Your task to perform on an android device: Search for Mexican restaurants on Maps Image 0: 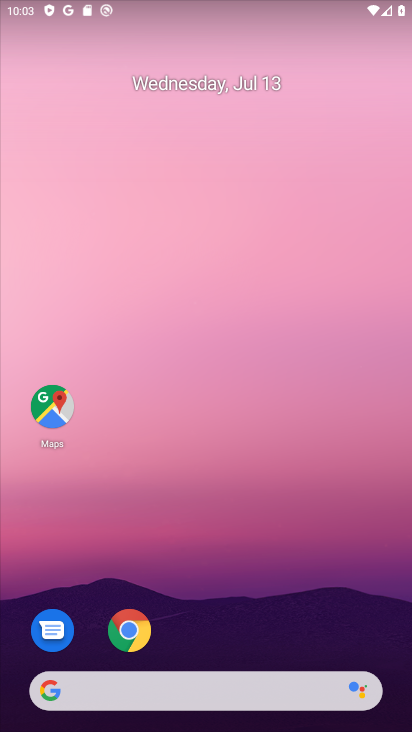
Step 0: drag from (326, 631) to (346, 140)
Your task to perform on an android device: Search for Mexican restaurants on Maps Image 1: 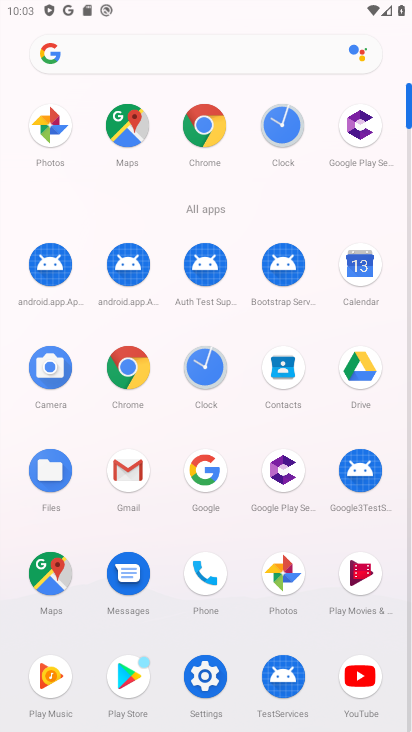
Step 1: click (54, 559)
Your task to perform on an android device: Search for Mexican restaurants on Maps Image 2: 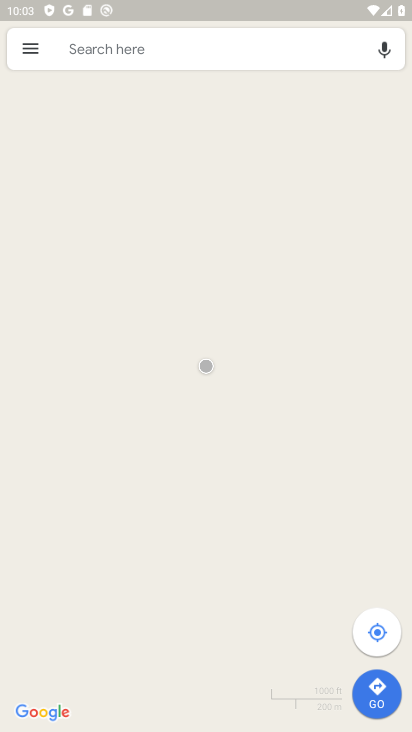
Step 2: click (239, 52)
Your task to perform on an android device: Search for Mexican restaurants on Maps Image 3: 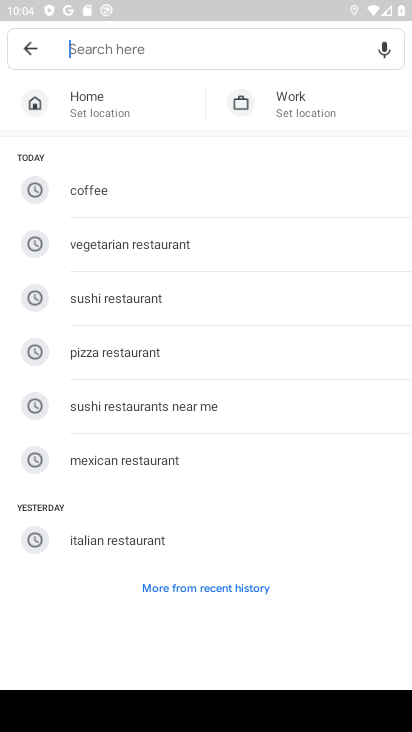
Step 3: click (176, 463)
Your task to perform on an android device: Search for Mexican restaurants on Maps Image 4: 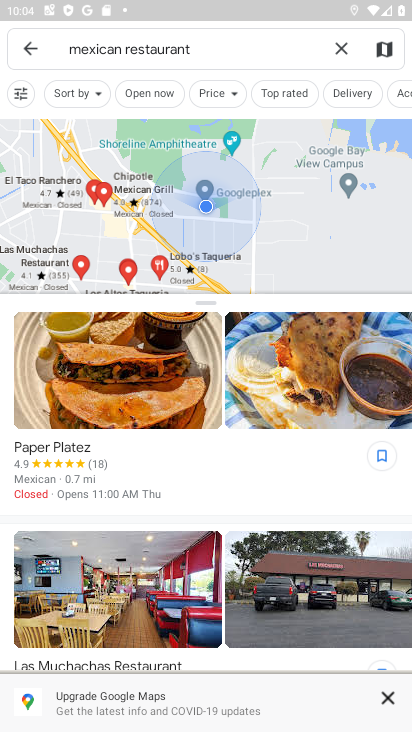
Step 4: task complete